Your task to perform on an android device: install app "Google Duo" Image 0: 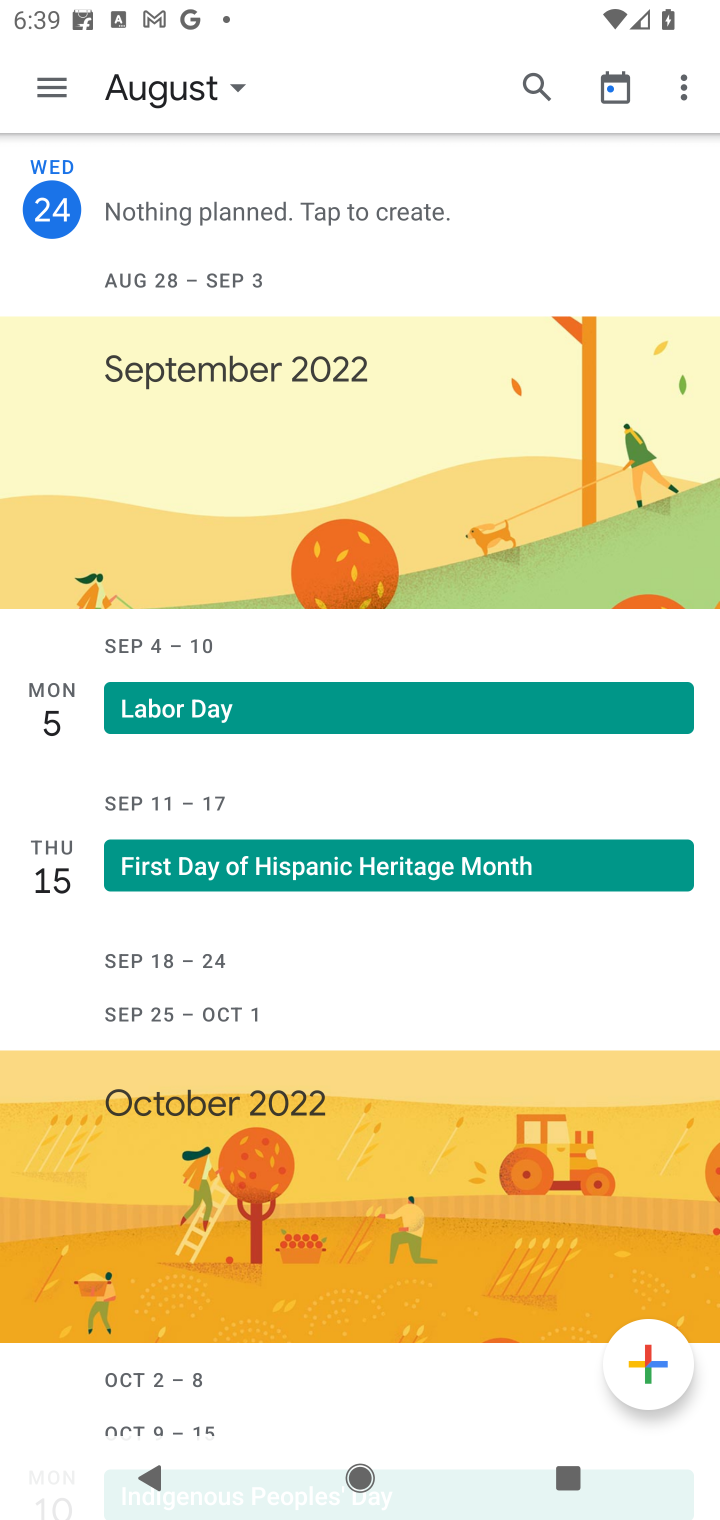
Step 0: press home button
Your task to perform on an android device: install app "Google Duo" Image 1: 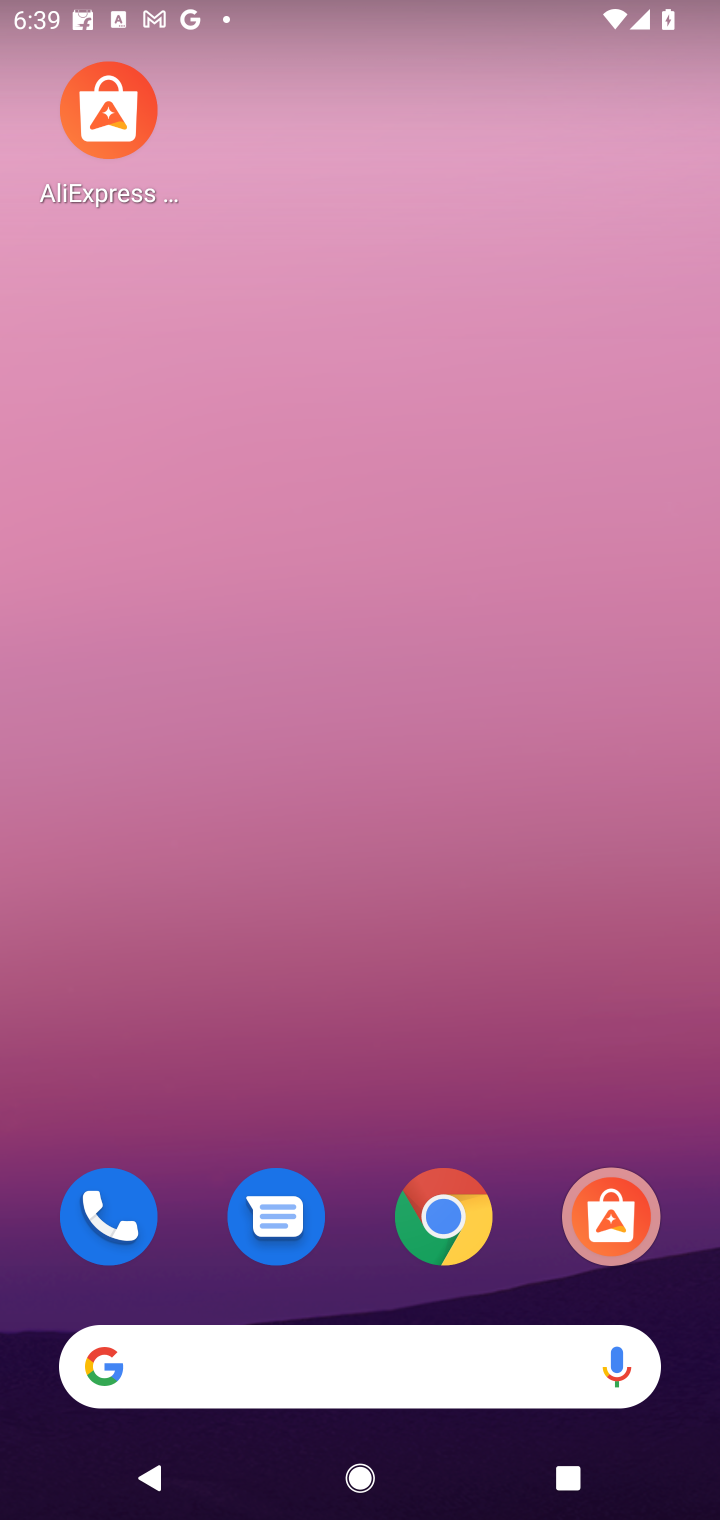
Step 1: drag from (343, 843) to (422, 172)
Your task to perform on an android device: install app "Google Duo" Image 2: 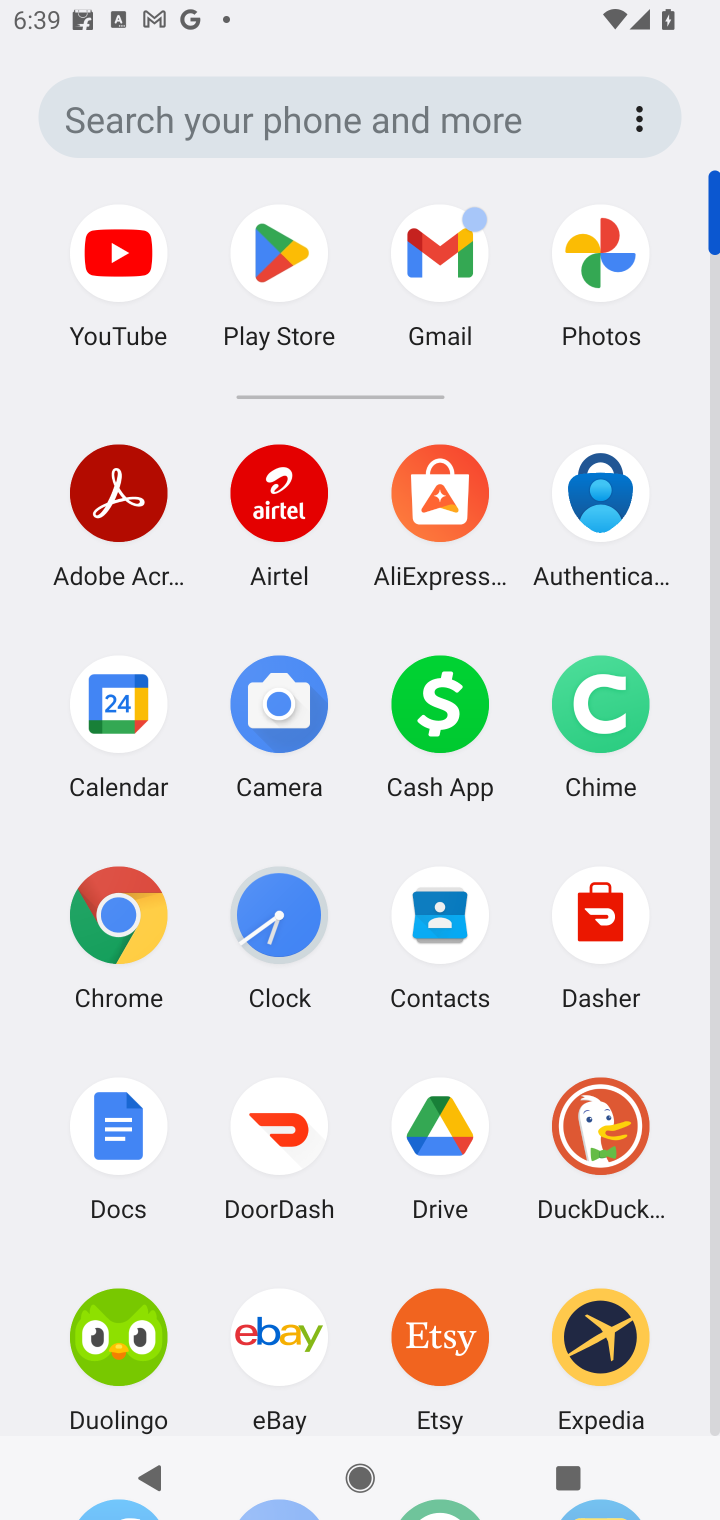
Step 2: click (322, 285)
Your task to perform on an android device: install app "Google Duo" Image 3: 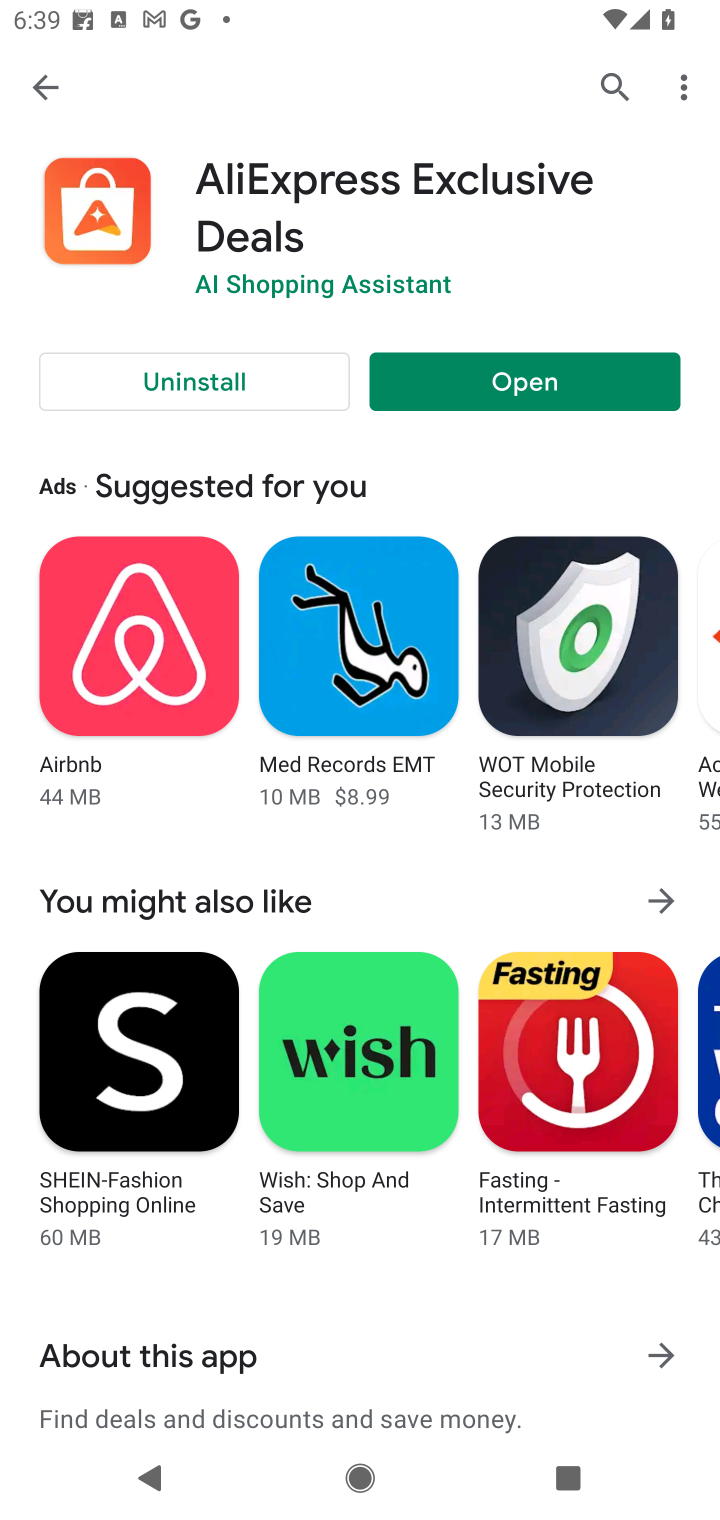
Step 3: click (604, 87)
Your task to perform on an android device: install app "Google Duo" Image 4: 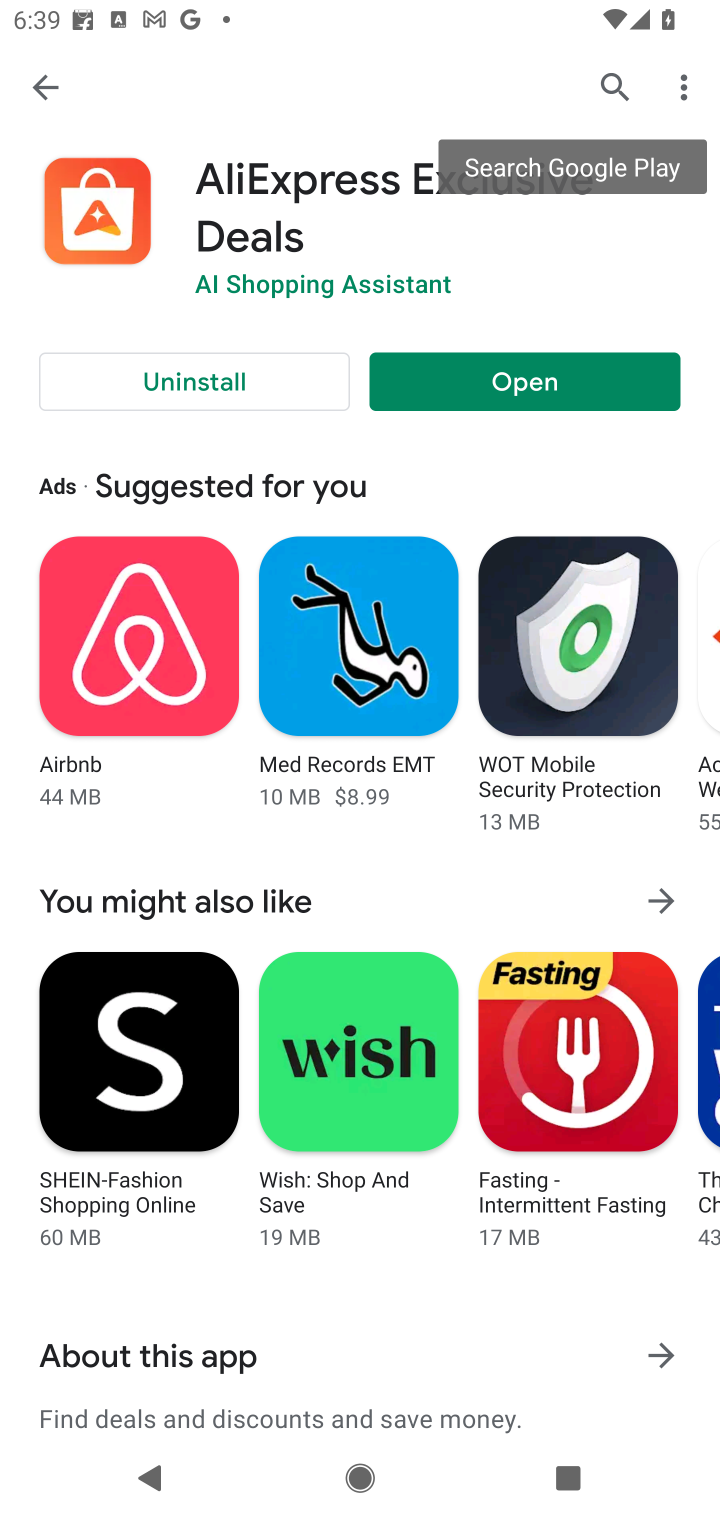
Step 4: click (604, 87)
Your task to perform on an android device: install app "Google Duo" Image 5: 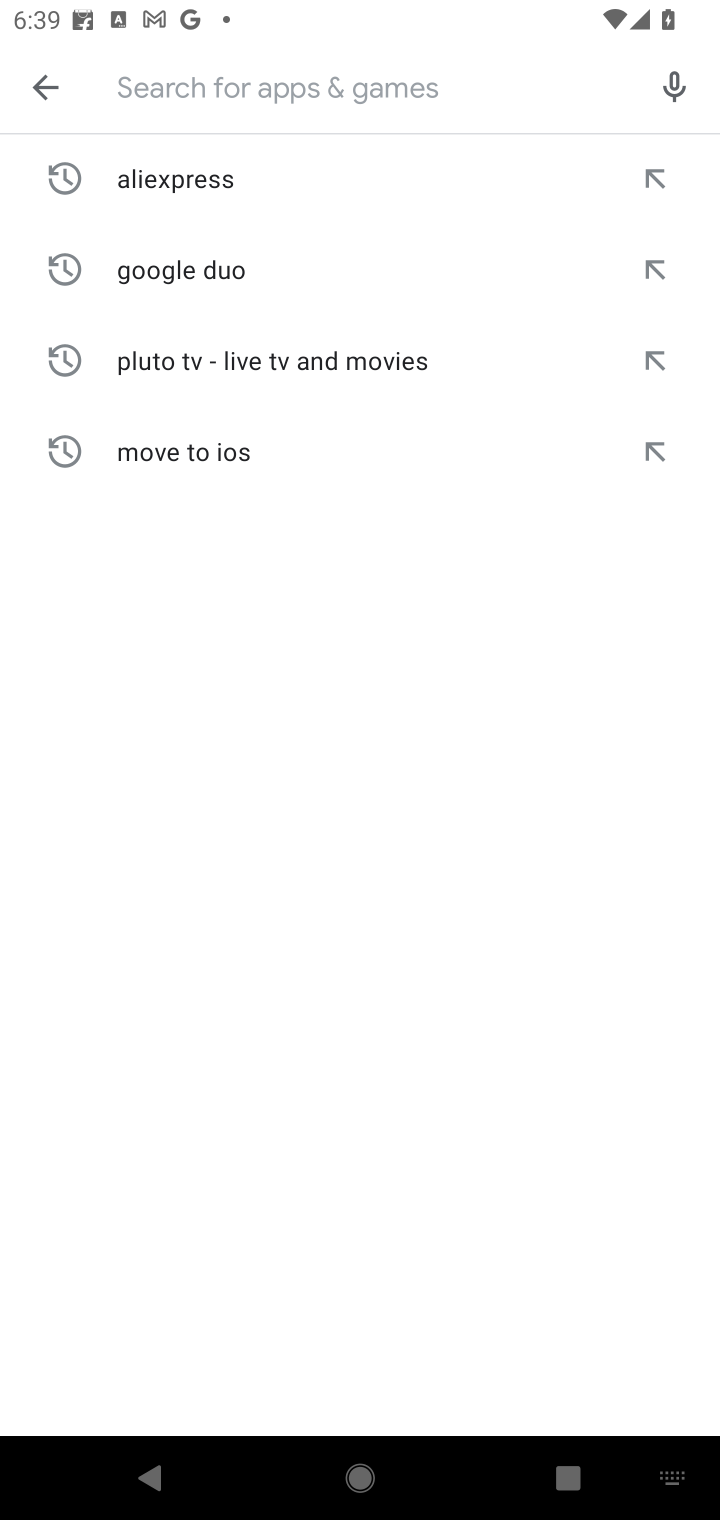
Step 5: type "Google Duo"
Your task to perform on an android device: install app "Google Duo" Image 6: 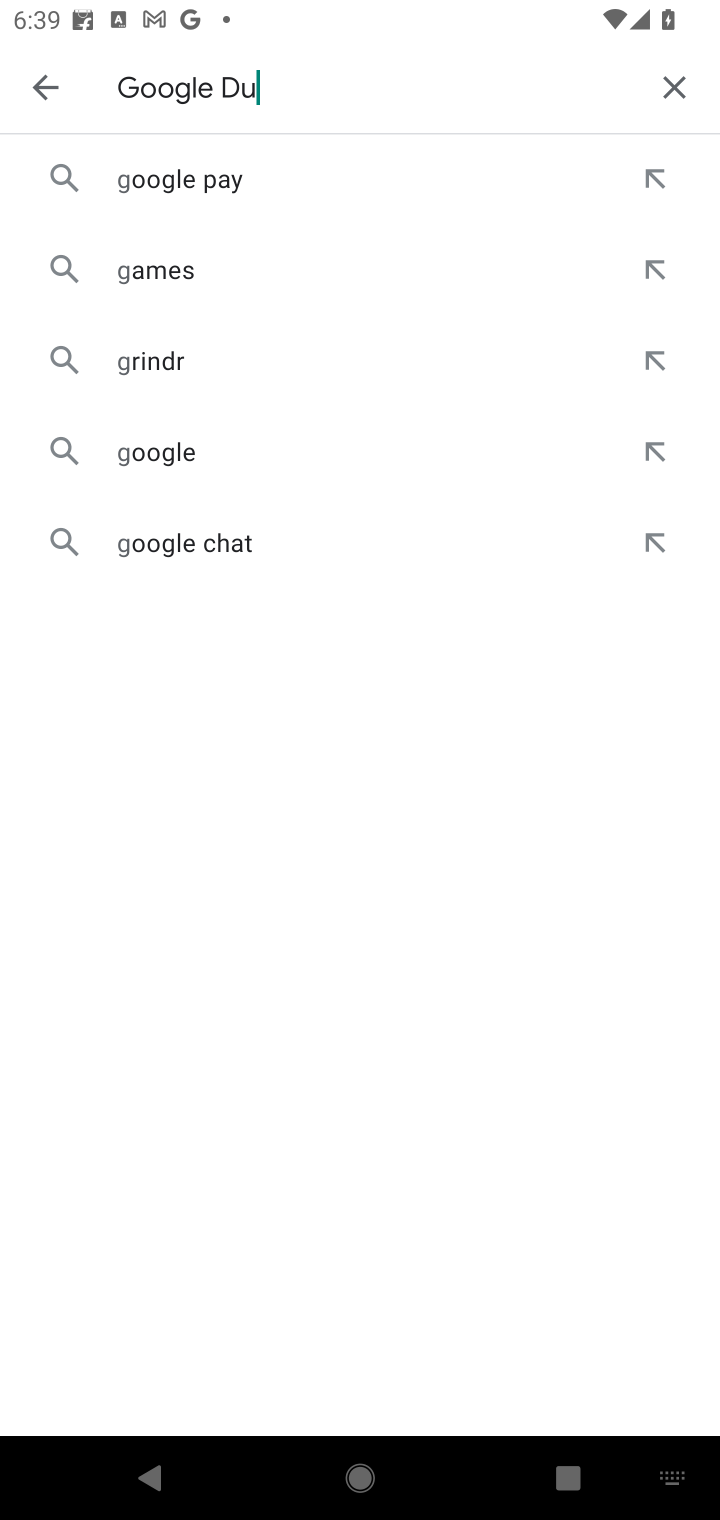
Step 6: type ""
Your task to perform on an android device: install app "Google Duo" Image 7: 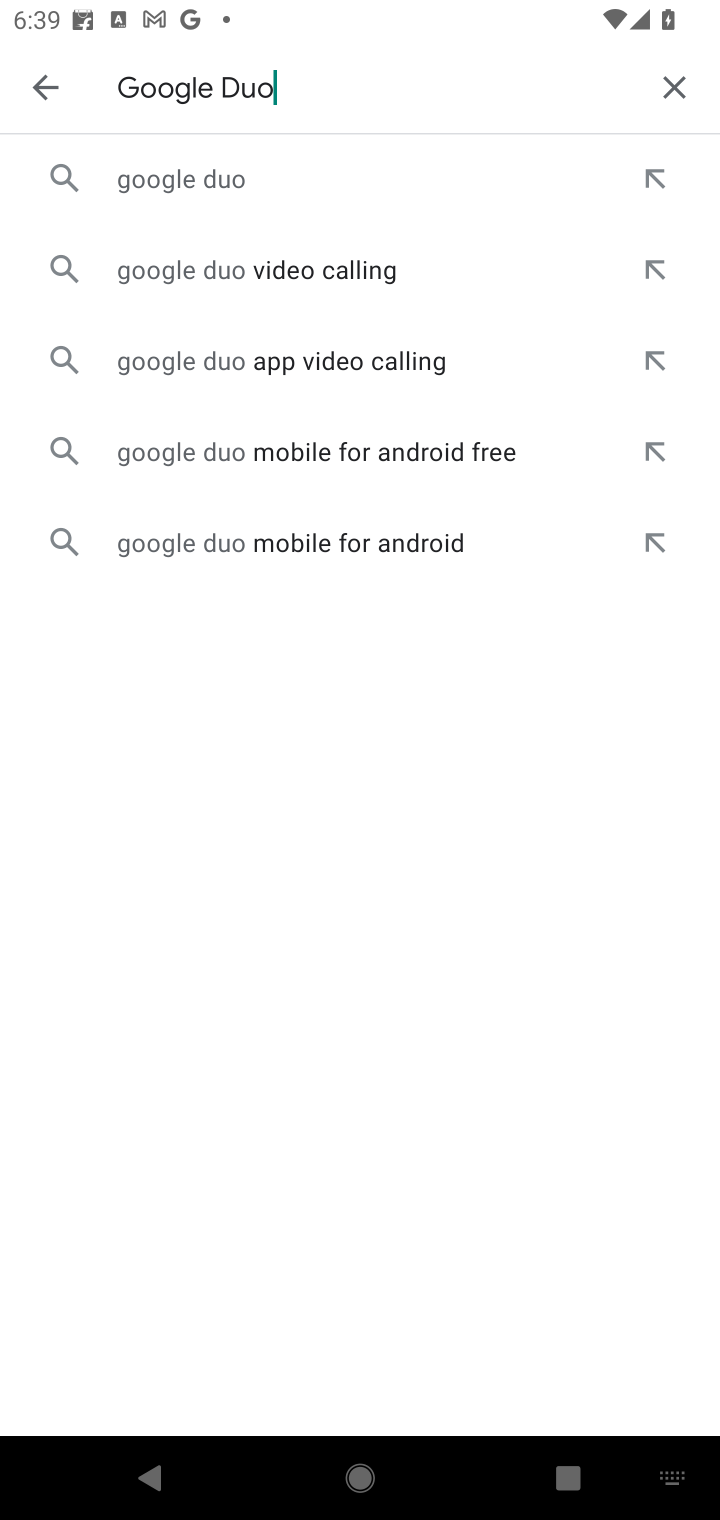
Step 7: click (270, 170)
Your task to perform on an android device: install app "Google Duo" Image 8: 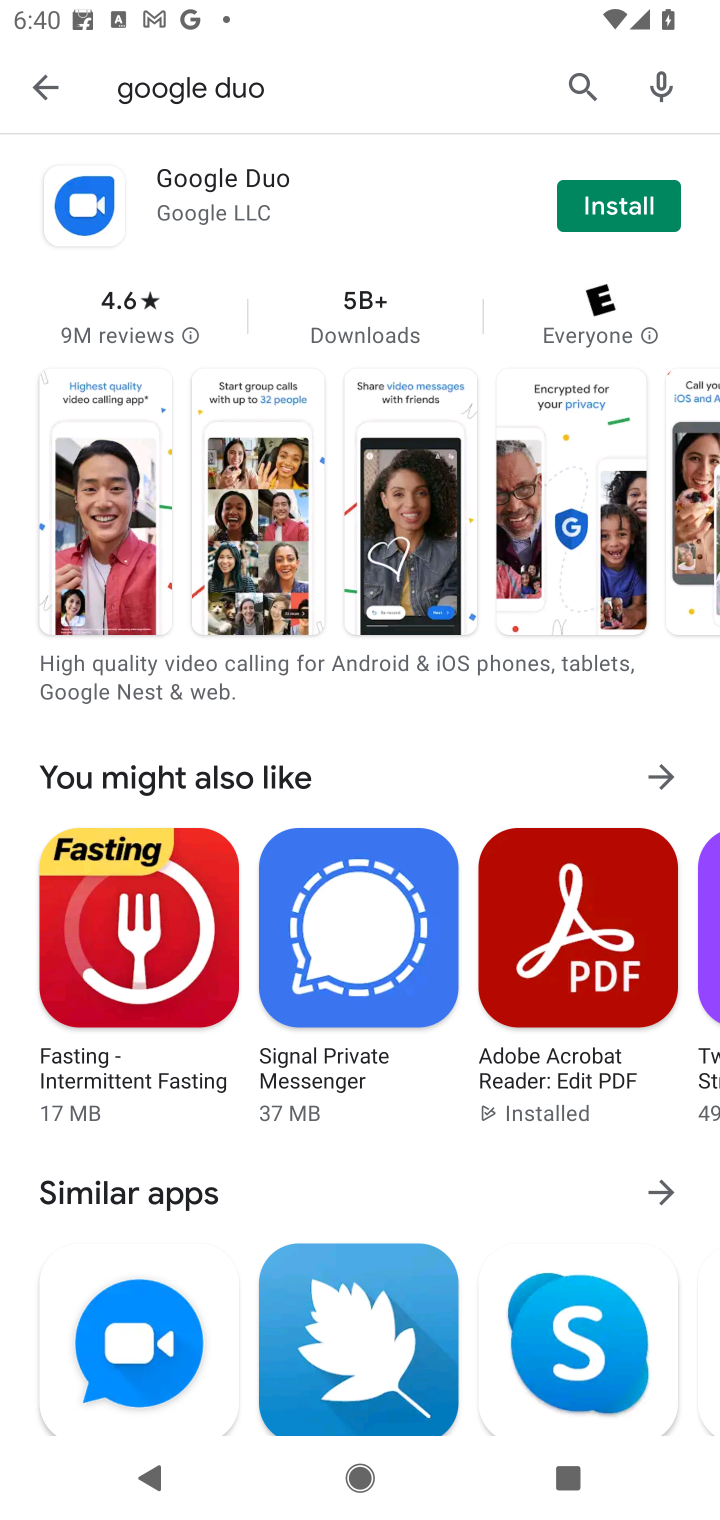
Step 8: click (632, 212)
Your task to perform on an android device: install app "Google Duo" Image 9: 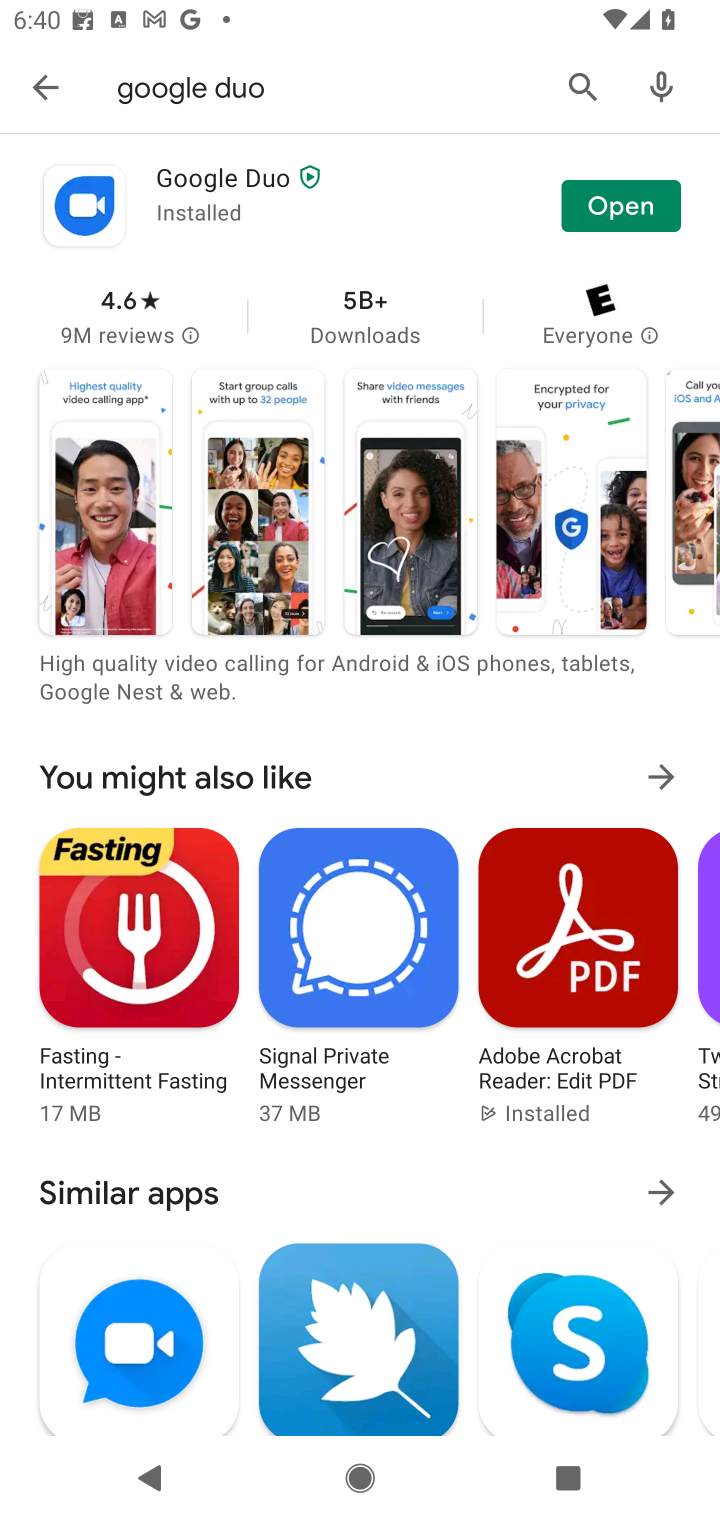
Step 9: task complete